Your task to perform on an android device: Go to notification settings Image 0: 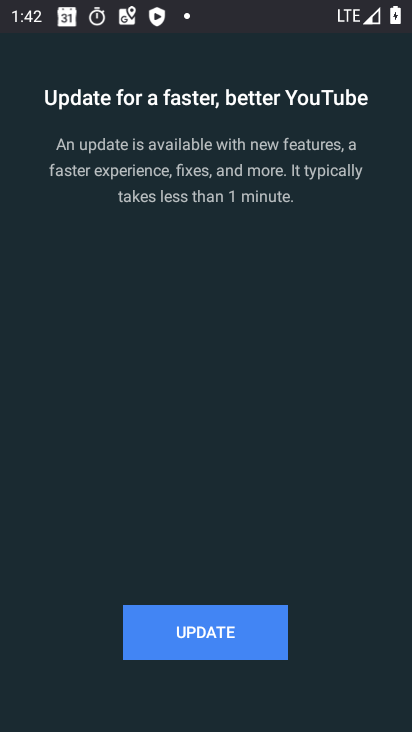
Step 0: press home button
Your task to perform on an android device: Go to notification settings Image 1: 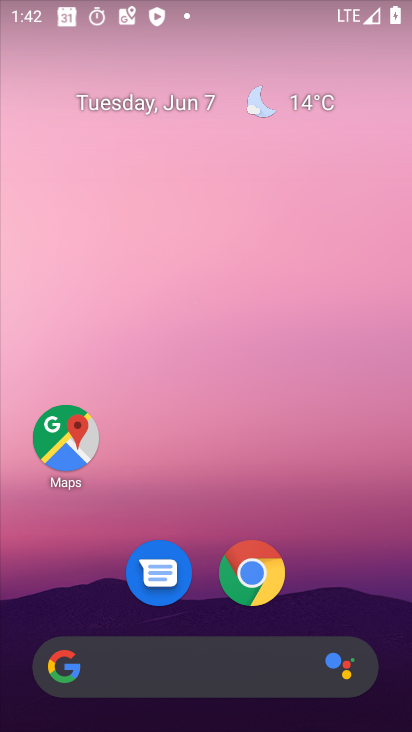
Step 1: drag from (202, 605) to (208, 94)
Your task to perform on an android device: Go to notification settings Image 2: 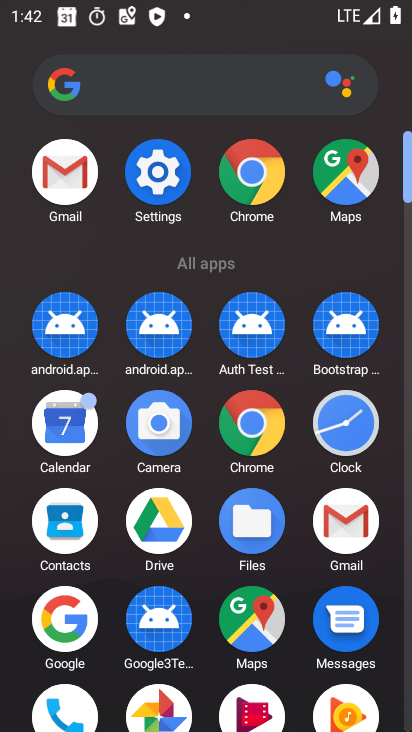
Step 2: click (156, 161)
Your task to perform on an android device: Go to notification settings Image 3: 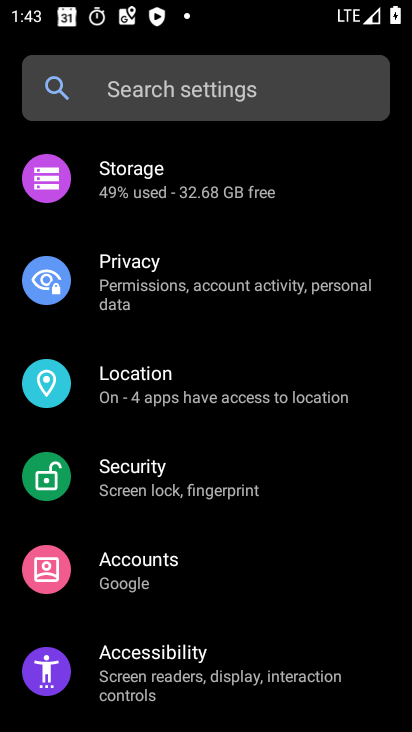
Step 3: drag from (132, 201) to (202, 723)
Your task to perform on an android device: Go to notification settings Image 4: 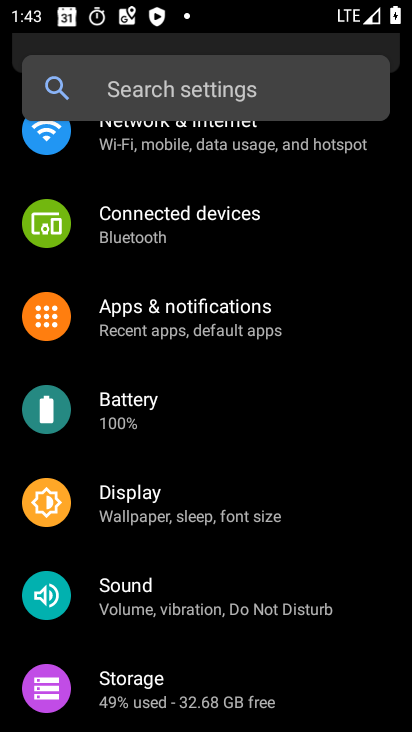
Step 4: click (208, 316)
Your task to perform on an android device: Go to notification settings Image 5: 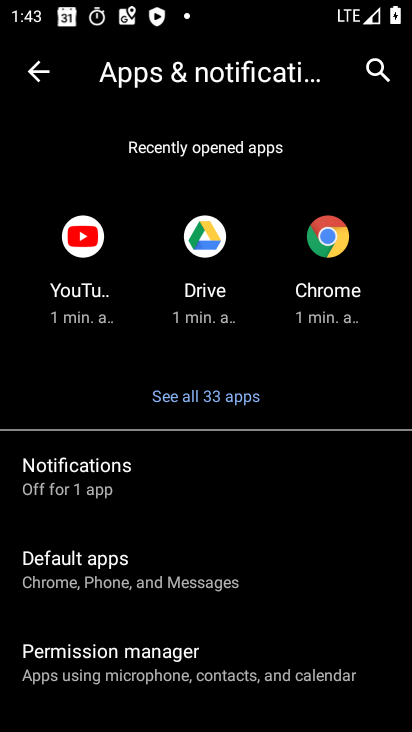
Step 5: click (134, 471)
Your task to perform on an android device: Go to notification settings Image 6: 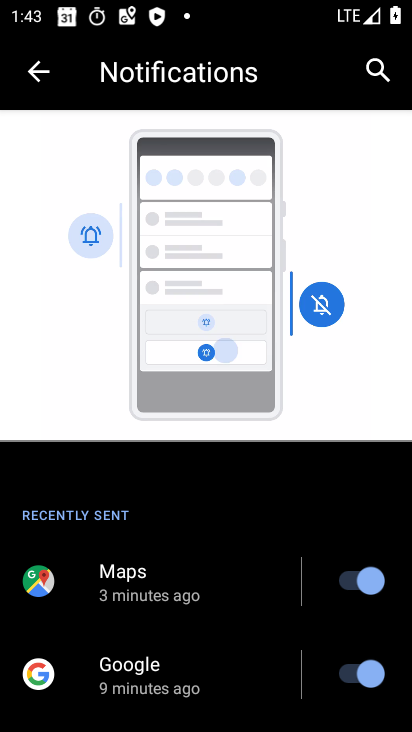
Step 6: drag from (243, 652) to (258, 20)
Your task to perform on an android device: Go to notification settings Image 7: 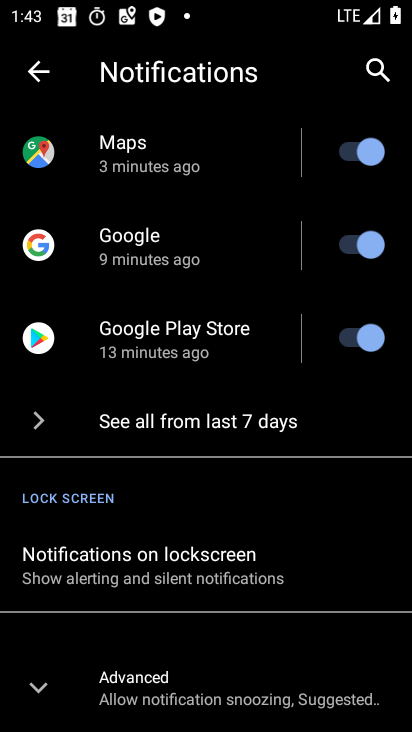
Step 7: click (43, 685)
Your task to perform on an android device: Go to notification settings Image 8: 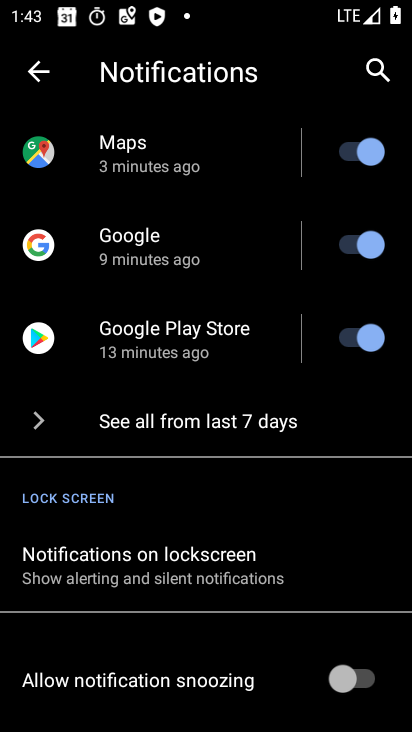
Step 8: task complete